Your task to perform on an android device: stop showing notifications on the lock screen Image 0: 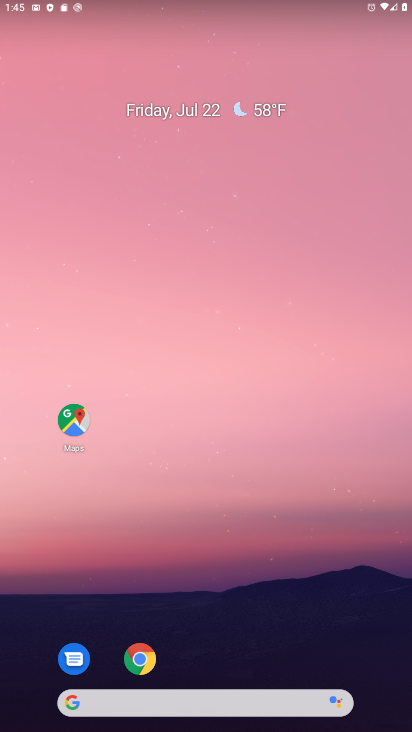
Step 0: drag from (216, 695) to (248, 53)
Your task to perform on an android device: stop showing notifications on the lock screen Image 1: 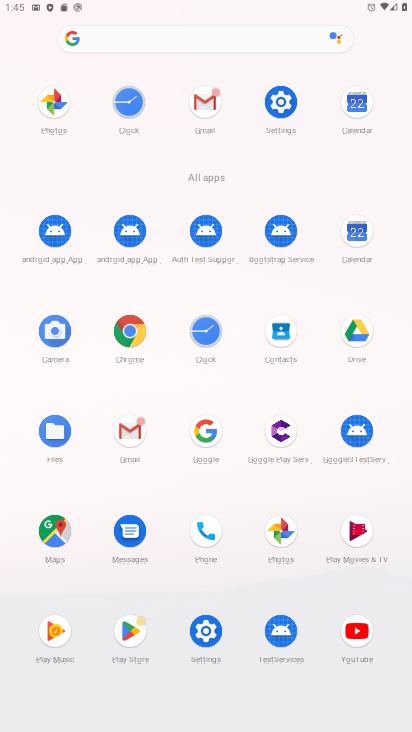
Step 1: click (270, 110)
Your task to perform on an android device: stop showing notifications on the lock screen Image 2: 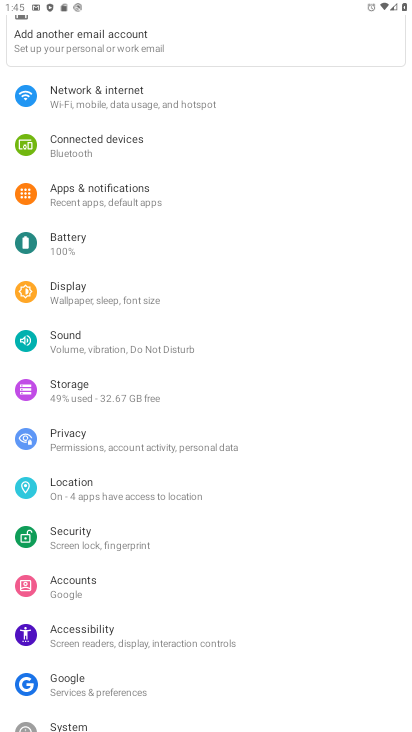
Step 2: click (108, 203)
Your task to perform on an android device: stop showing notifications on the lock screen Image 3: 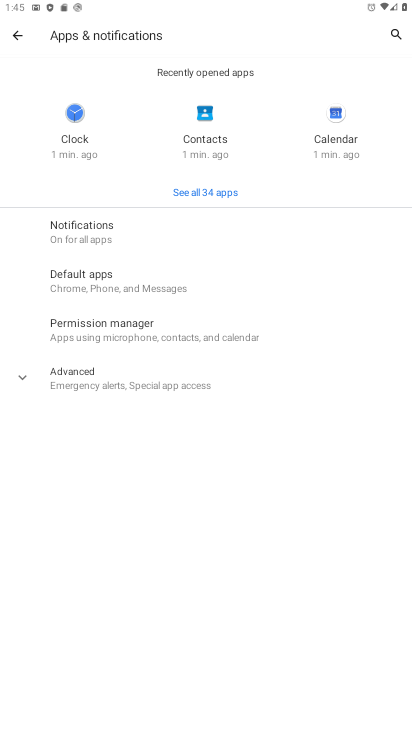
Step 3: click (110, 229)
Your task to perform on an android device: stop showing notifications on the lock screen Image 4: 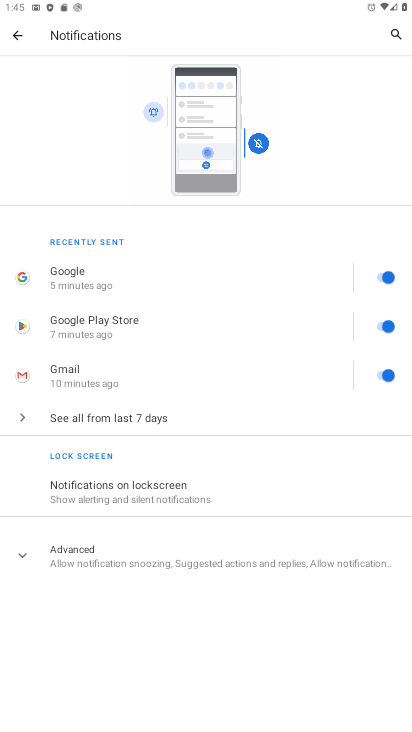
Step 4: click (160, 496)
Your task to perform on an android device: stop showing notifications on the lock screen Image 5: 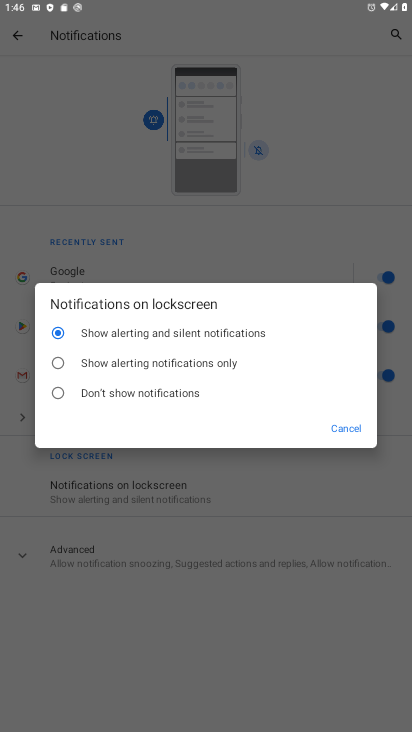
Step 5: click (101, 406)
Your task to perform on an android device: stop showing notifications on the lock screen Image 6: 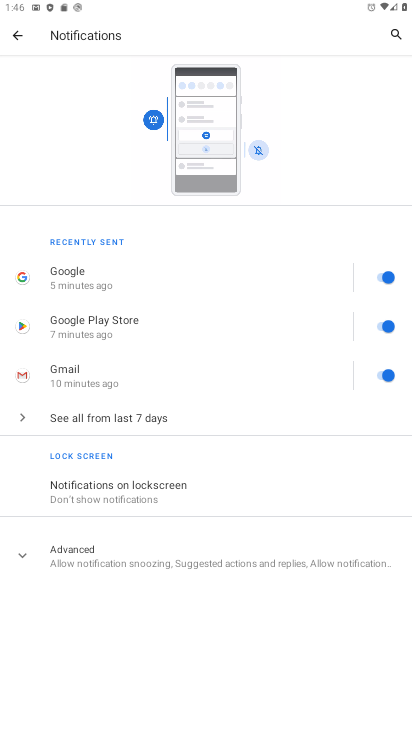
Step 6: task complete